Your task to perform on an android device: check out phone information Image 0: 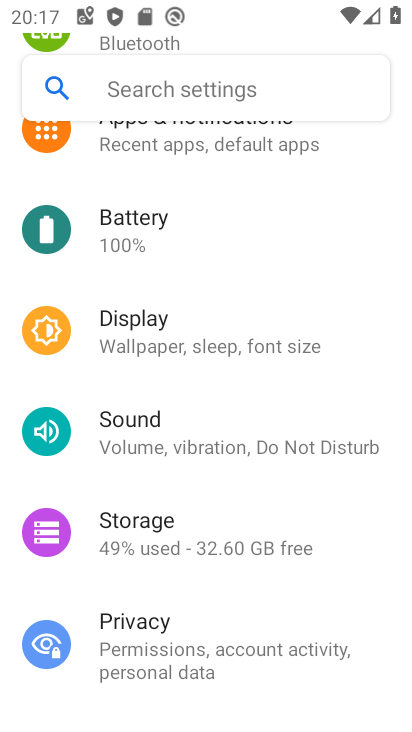
Step 0: drag from (233, 596) to (249, 359)
Your task to perform on an android device: check out phone information Image 1: 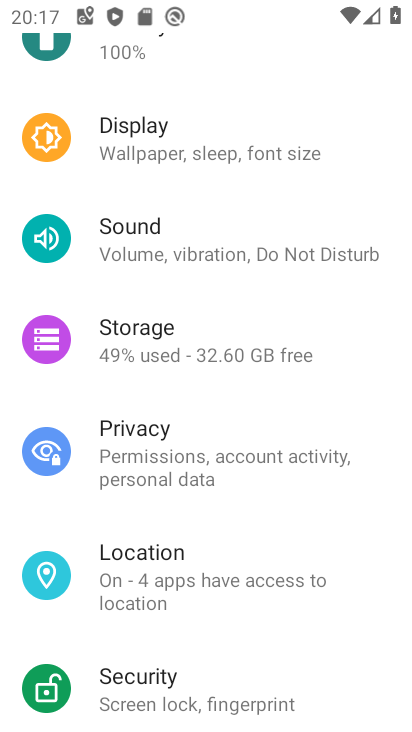
Step 1: drag from (212, 588) to (235, 208)
Your task to perform on an android device: check out phone information Image 2: 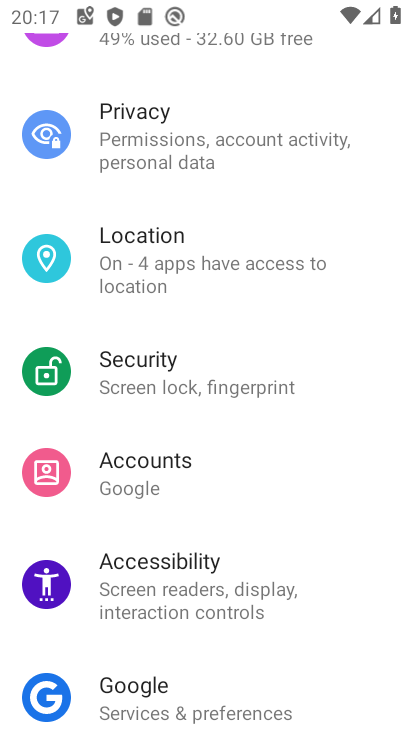
Step 2: drag from (241, 649) to (283, 331)
Your task to perform on an android device: check out phone information Image 3: 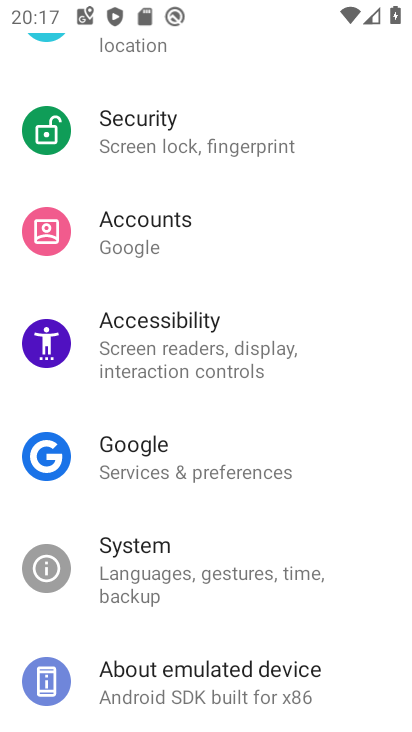
Step 3: click (192, 671)
Your task to perform on an android device: check out phone information Image 4: 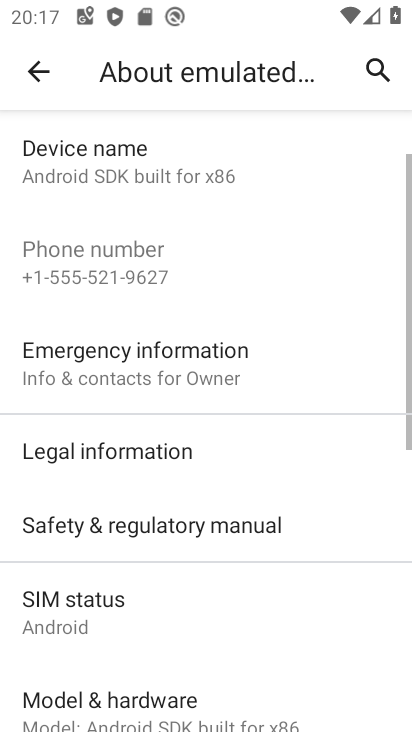
Step 4: task complete